Your task to perform on an android device: Turn off notifications for the Google Maps app Image 0: 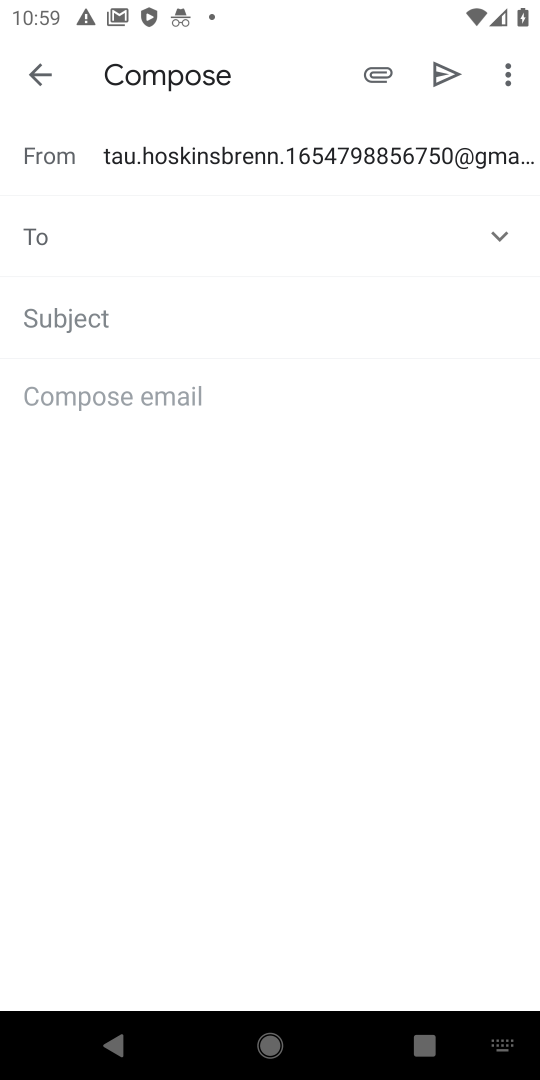
Step 0: press home button
Your task to perform on an android device: Turn off notifications for the Google Maps app Image 1: 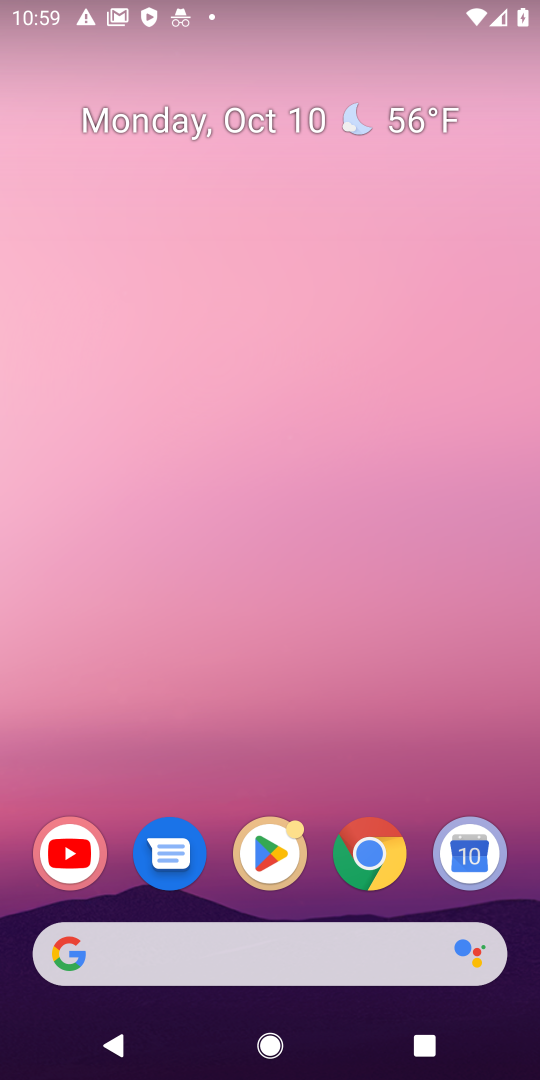
Step 1: drag from (415, 718) to (437, 94)
Your task to perform on an android device: Turn off notifications for the Google Maps app Image 2: 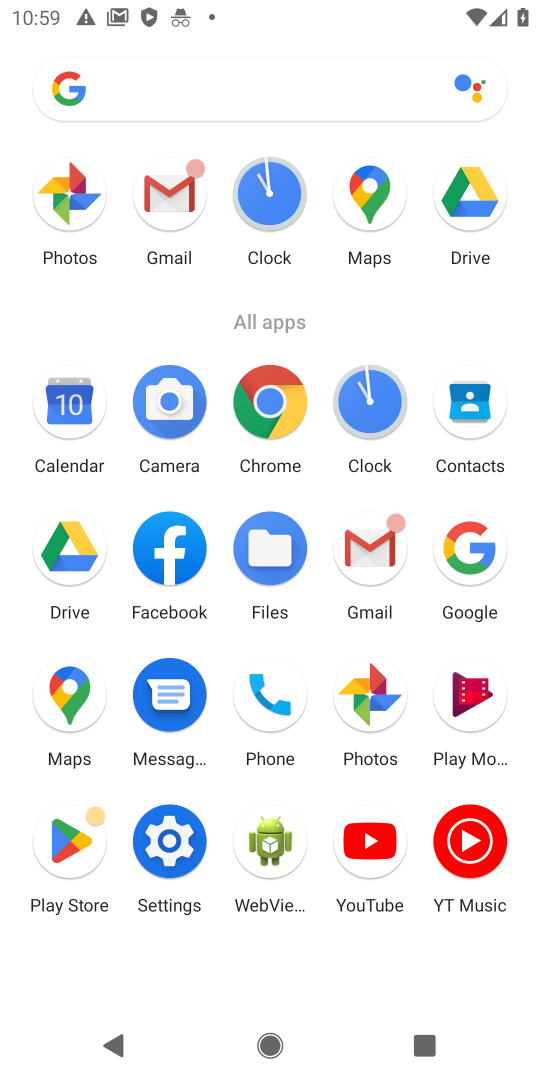
Step 2: click (74, 713)
Your task to perform on an android device: Turn off notifications for the Google Maps app Image 3: 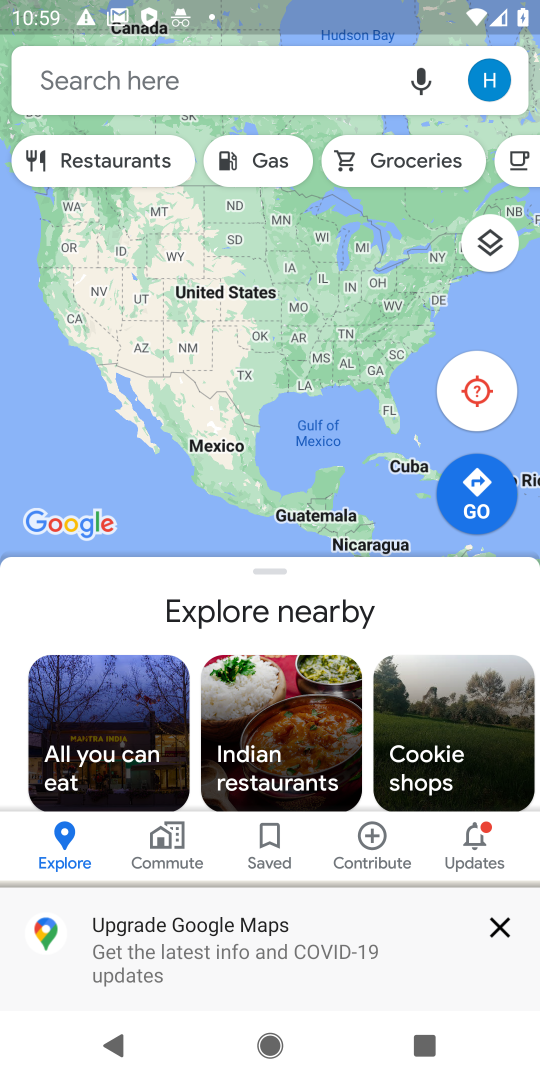
Step 3: click (498, 88)
Your task to perform on an android device: Turn off notifications for the Google Maps app Image 4: 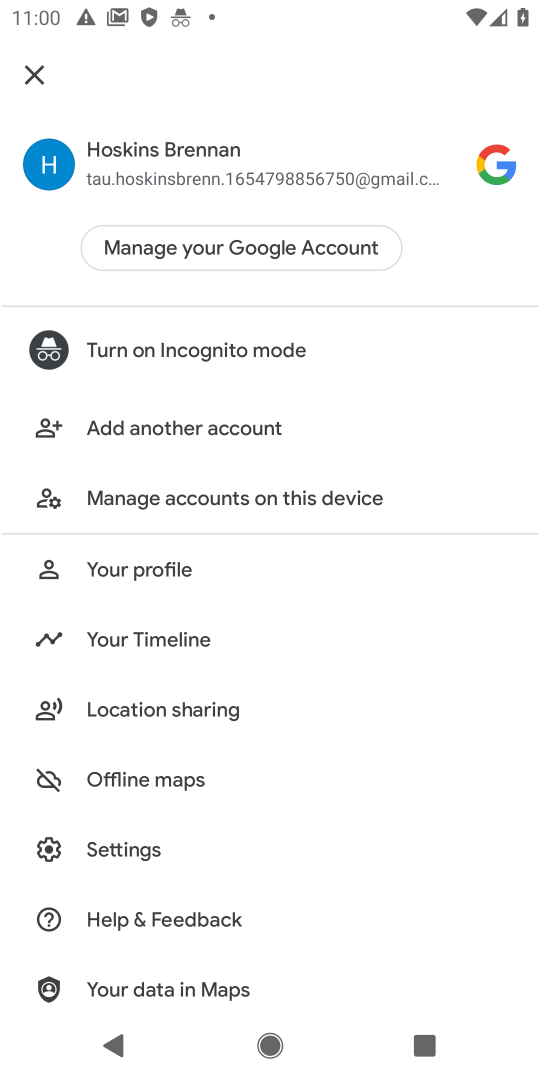
Step 4: click (142, 850)
Your task to perform on an android device: Turn off notifications for the Google Maps app Image 5: 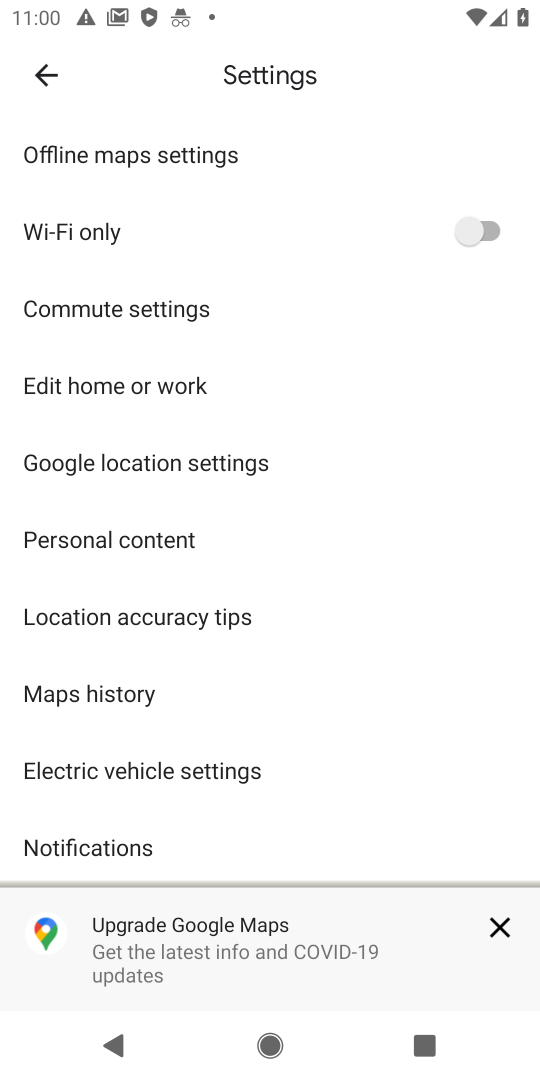
Step 5: drag from (322, 711) to (354, 299)
Your task to perform on an android device: Turn off notifications for the Google Maps app Image 6: 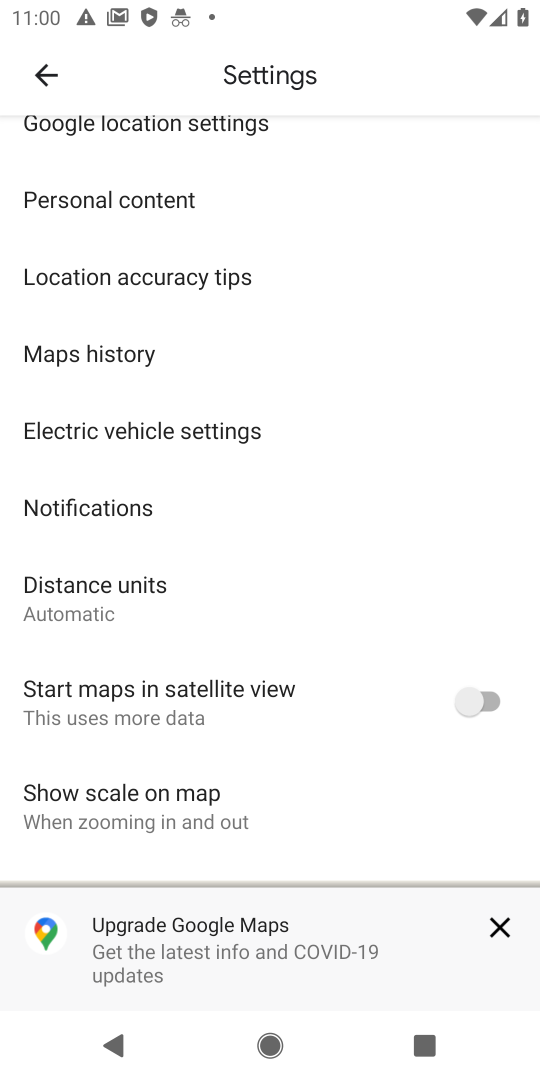
Step 6: drag from (365, 199) to (365, 730)
Your task to perform on an android device: Turn off notifications for the Google Maps app Image 7: 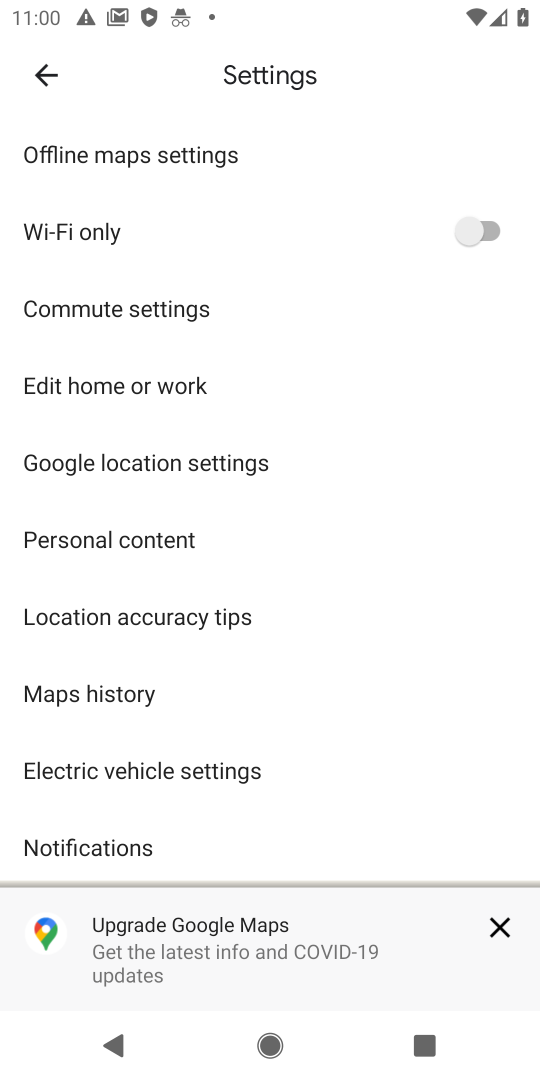
Step 7: drag from (355, 758) to (390, 295)
Your task to perform on an android device: Turn off notifications for the Google Maps app Image 8: 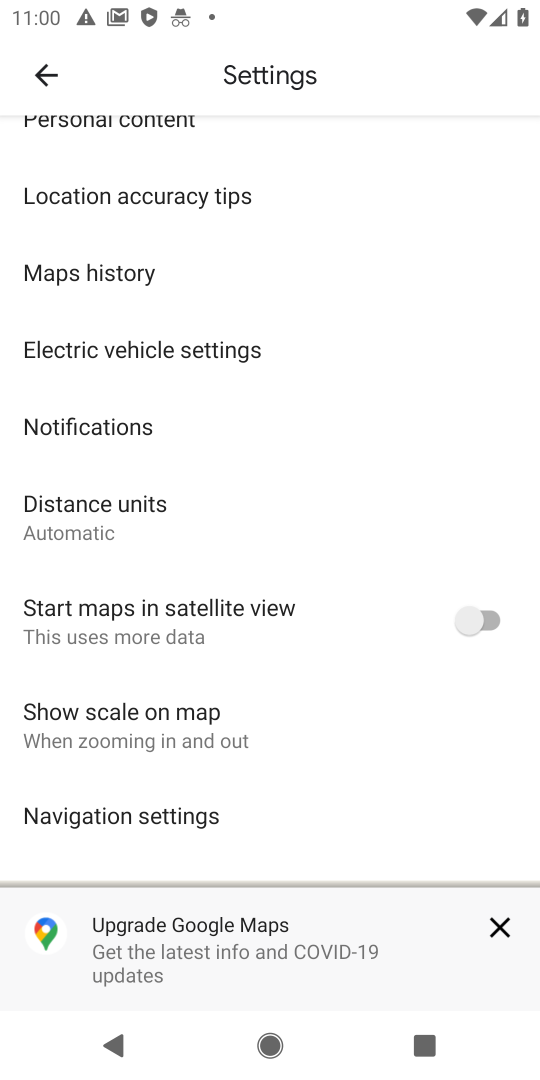
Step 8: click (134, 425)
Your task to perform on an android device: Turn off notifications for the Google Maps app Image 9: 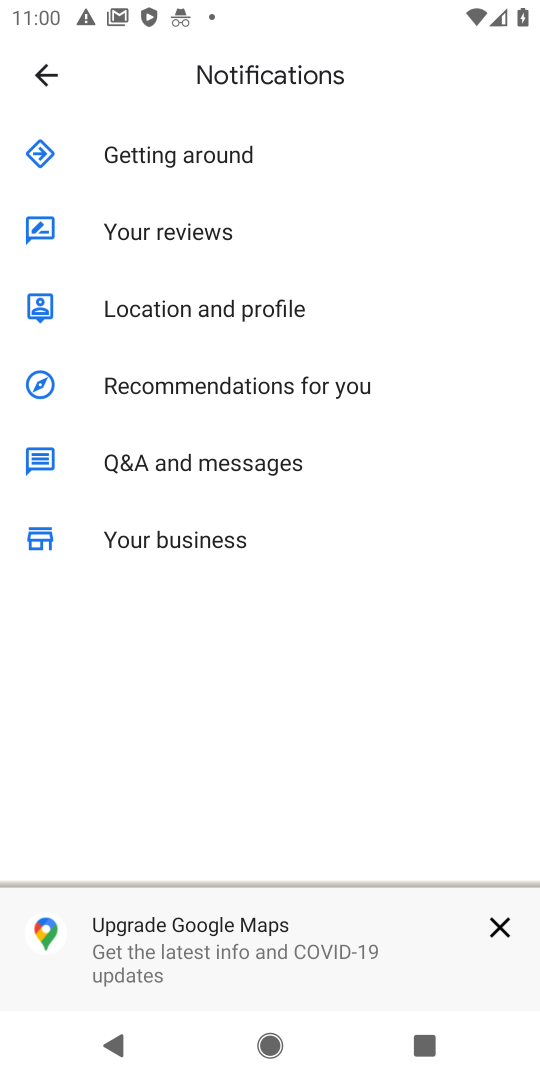
Step 9: click (236, 144)
Your task to perform on an android device: Turn off notifications for the Google Maps app Image 10: 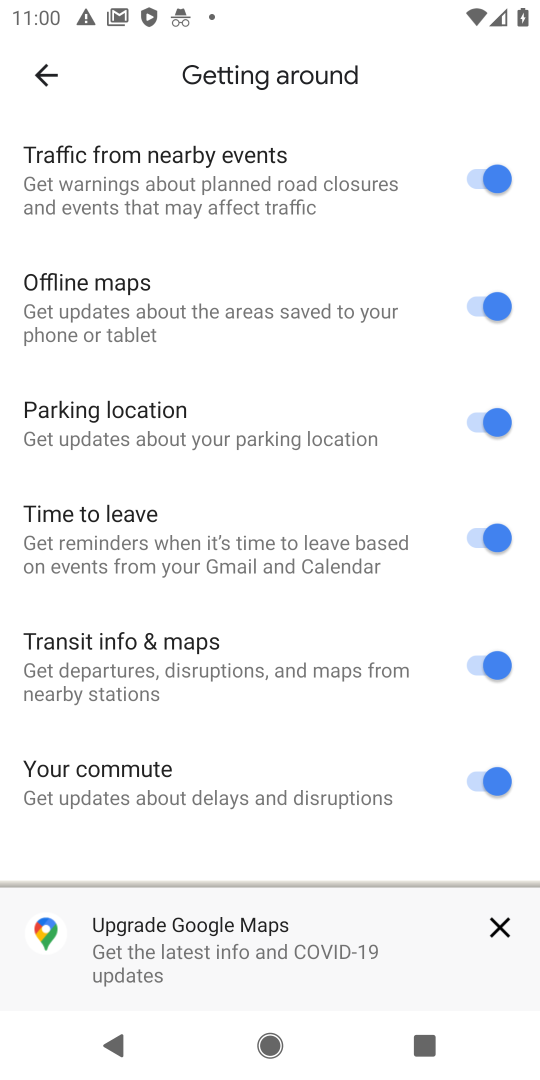
Step 10: click (487, 179)
Your task to perform on an android device: Turn off notifications for the Google Maps app Image 11: 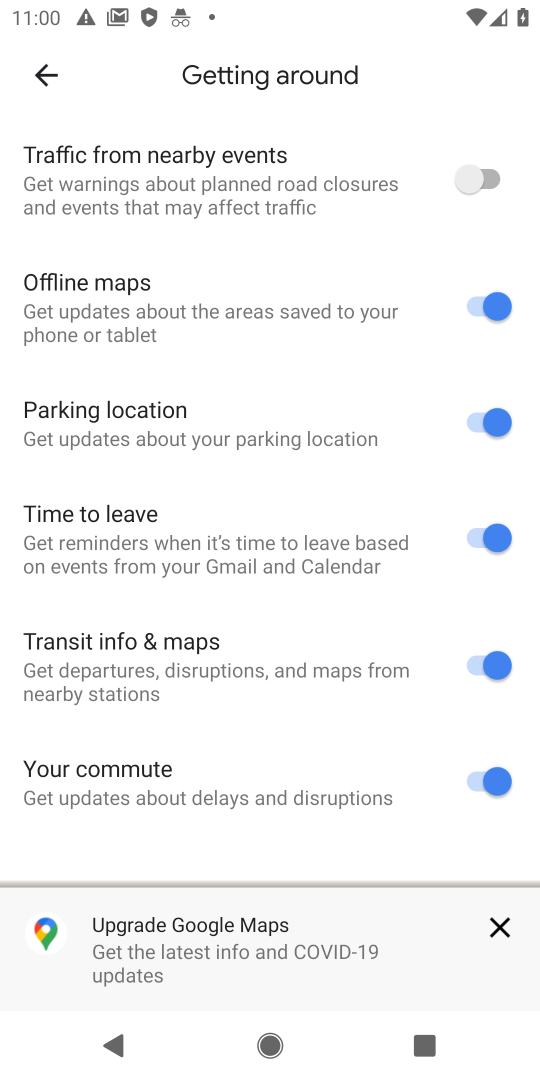
Step 11: click (491, 308)
Your task to perform on an android device: Turn off notifications for the Google Maps app Image 12: 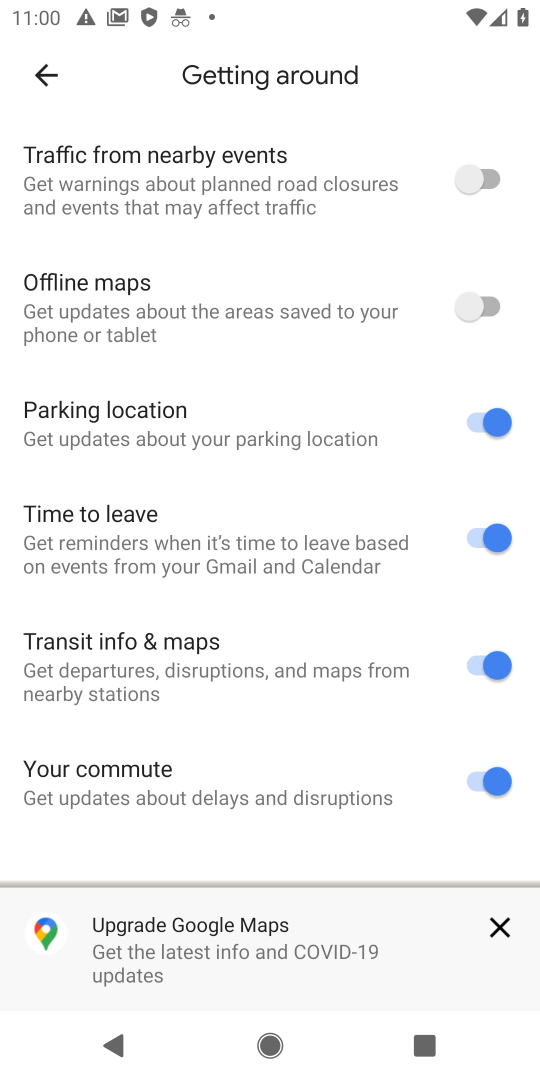
Step 12: click (477, 414)
Your task to perform on an android device: Turn off notifications for the Google Maps app Image 13: 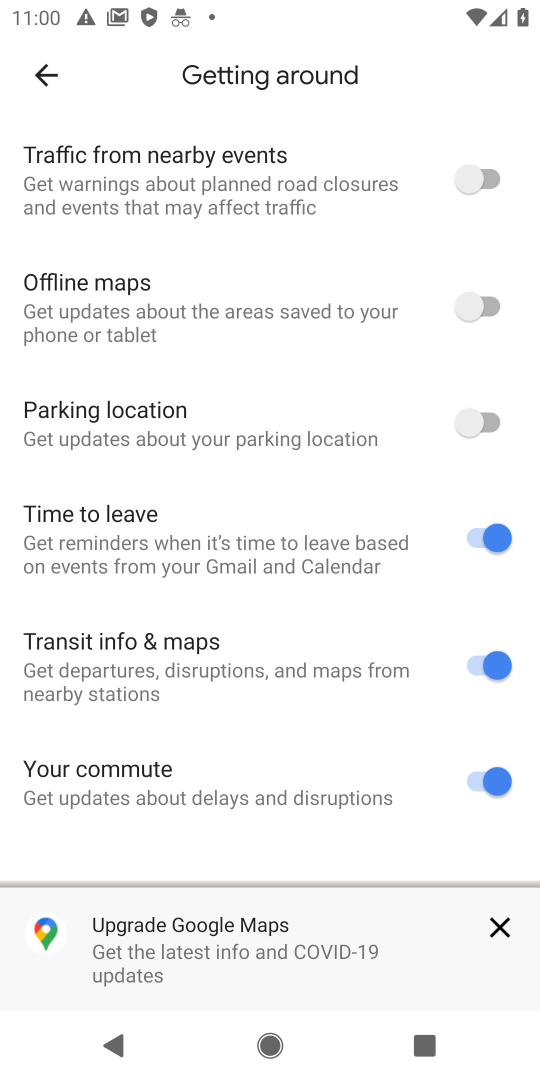
Step 13: click (508, 523)
Your task to perform on an android device: Turn off notifications for the Google Maps app Image 14: 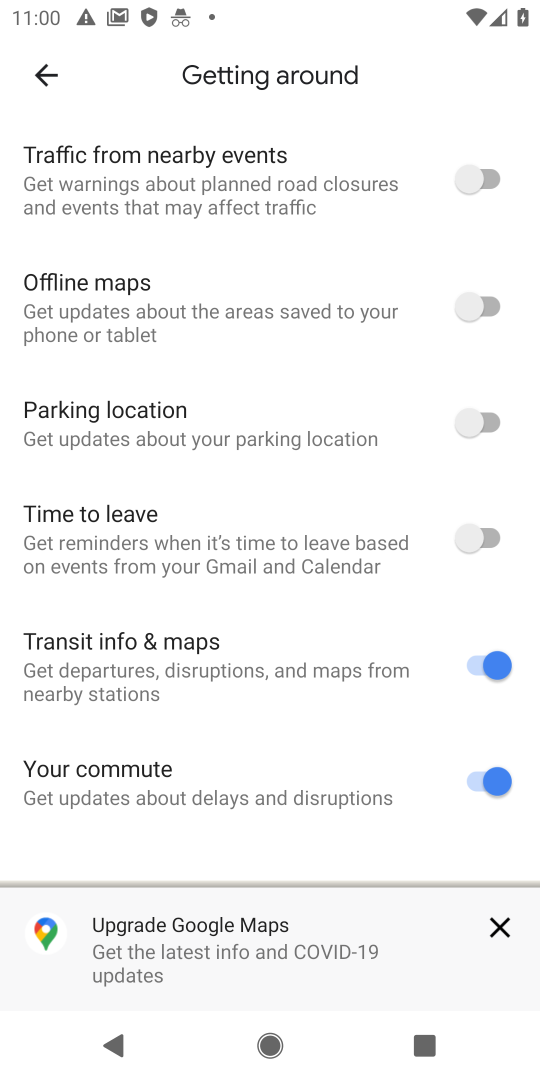
Step 14: click (499, 666)
Your task to perform on an android device: Turn off notifications for the Google Maps app Image 15: 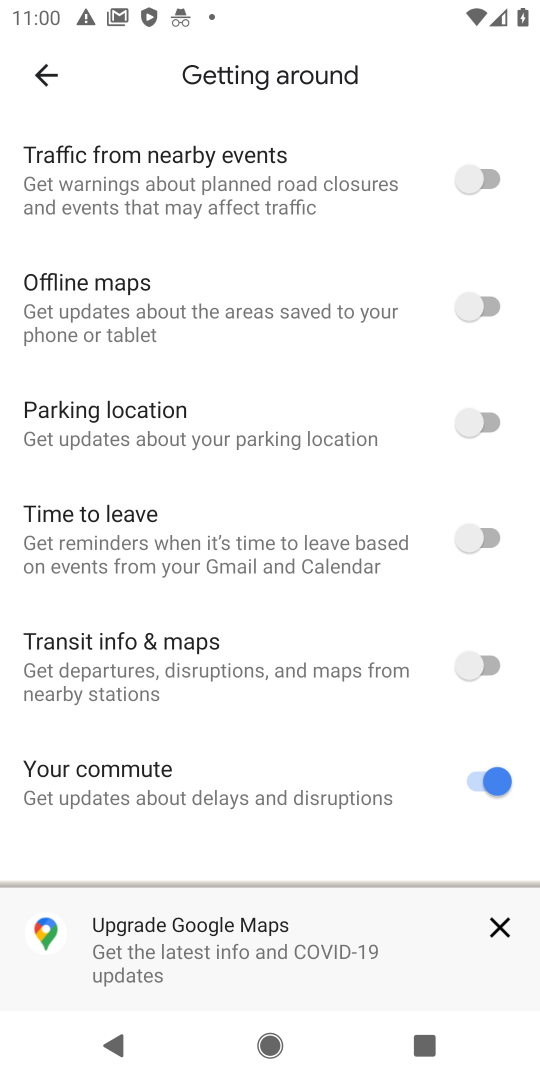
Step 15: click (493, 780)
Your task to perform on an android device: Turn off notifications for the Google Maps app Image 16: 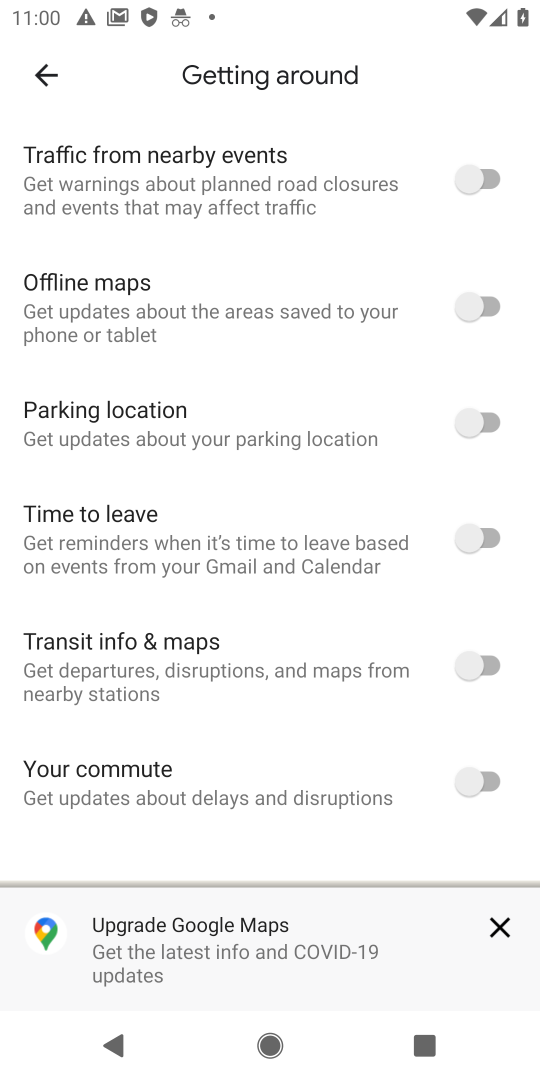
Step 16: task complete